Your task to perform on an android device: open sync settings in chrome Image 0: 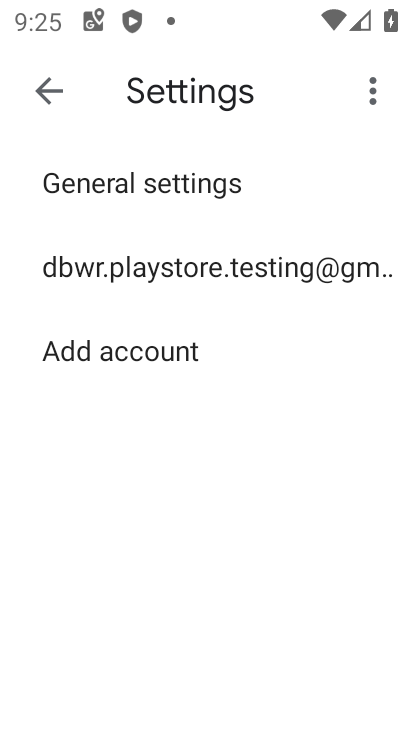
Step 0: press home button
Your task to perform on an android device: open sync settings in chrome Image 1: 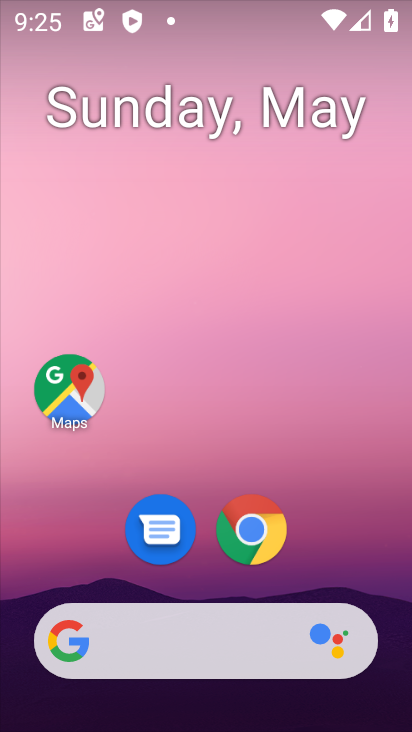
Step 1: click (277, 531)
Your task to perform on an android device: open sync settings in chrome Image 2: 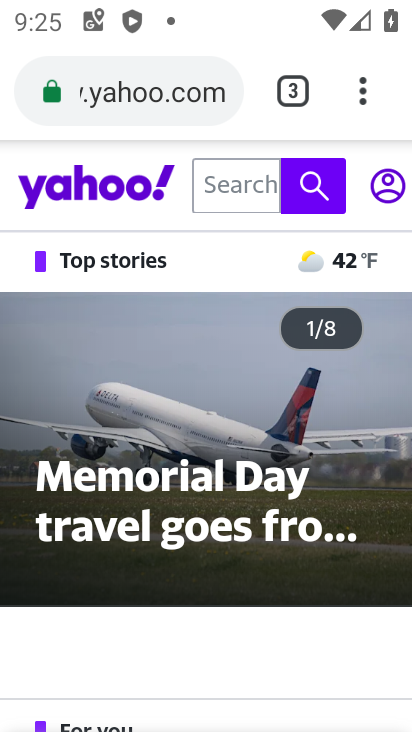
Step 2: click (366, 89)
Your task to perform on an android device: open sync settings in chrome Image 3: 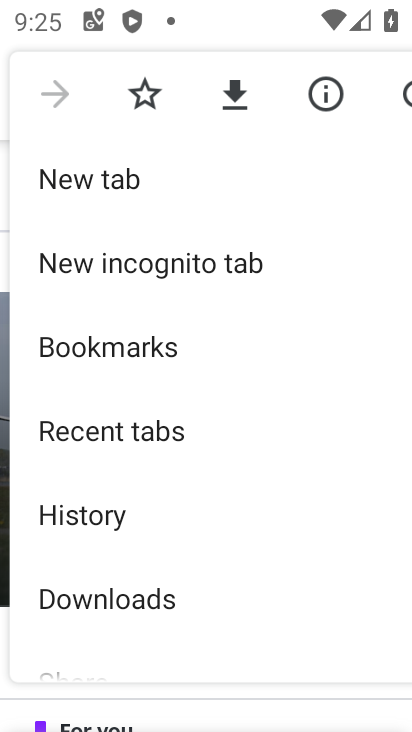
Step 3: drag from (144, 515) to (133, 165)
Your task to perform on an android device: open sync settings in chrome Image 4: 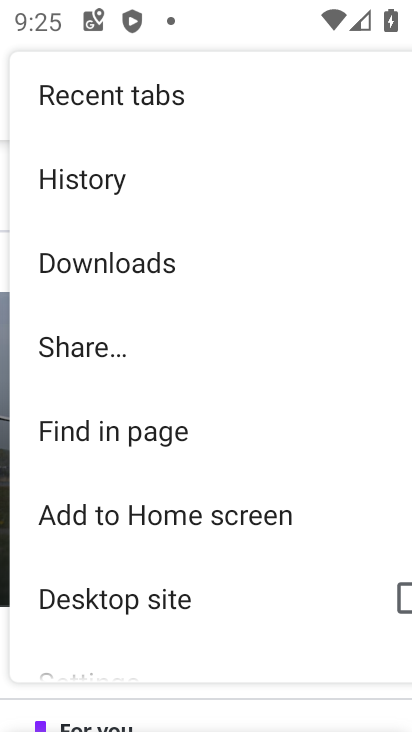
Step 4: drag from (246, 577) to (200, 69)
Your task to perform on an android device: open sync settings in chrome Image 5: 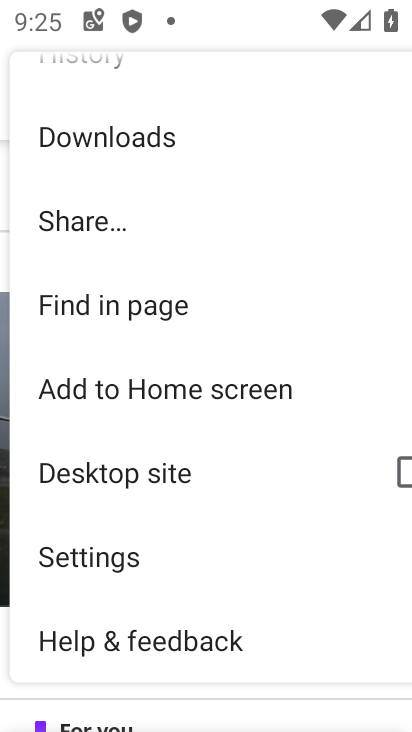
Step 5: click (193, 567)
Your task to perform on an android device: open sync settings in chrome Image 6: 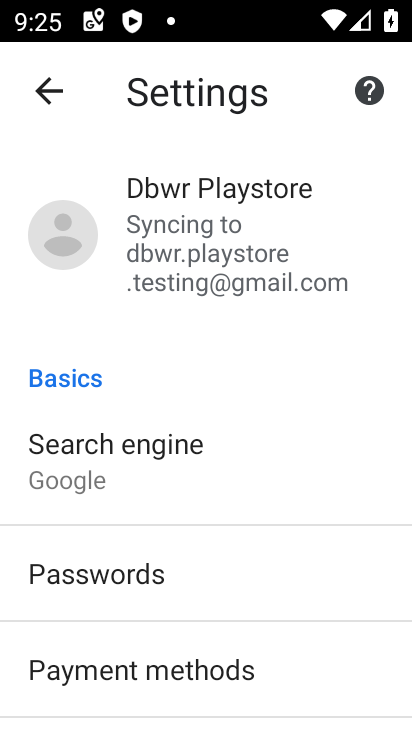
Step 6: click (157, 185)
Your task to perform on an android device: open sync settings in chrome Image 7: 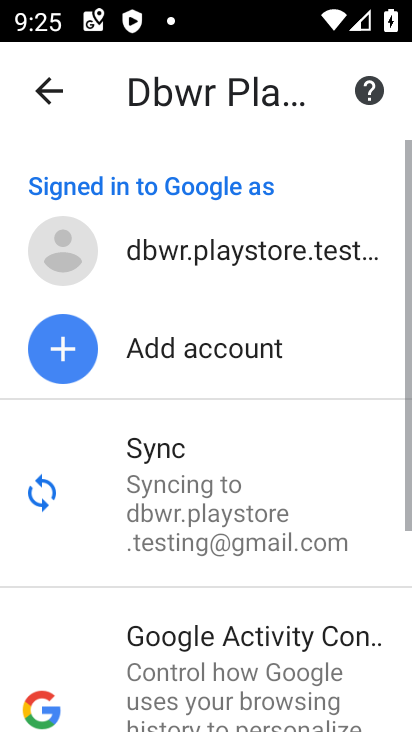
Step 7: task complete